Your task to perform on an android device: change the clock display to analog Image 0: 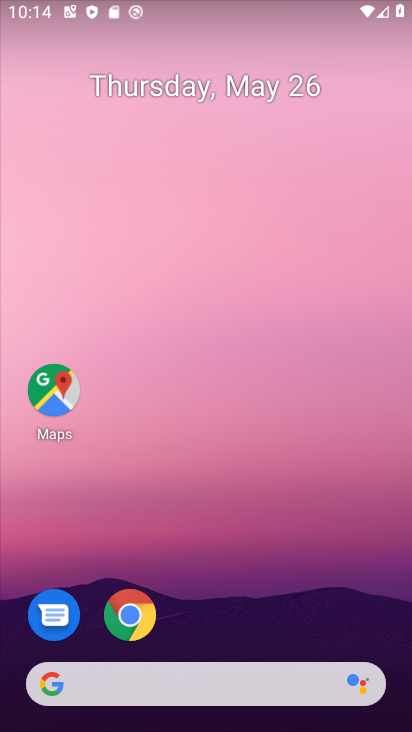
Step 0: drag from (180, 683) to (190, 155)
Your task to perform on an android device: change the clock display to analog Image 1: 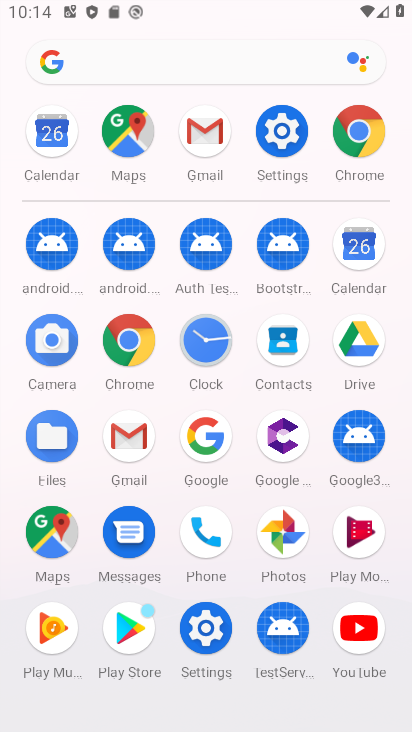
Step 1: click (210, 348)
Your task to perform on an android device: change the clock display to analog Image 2: 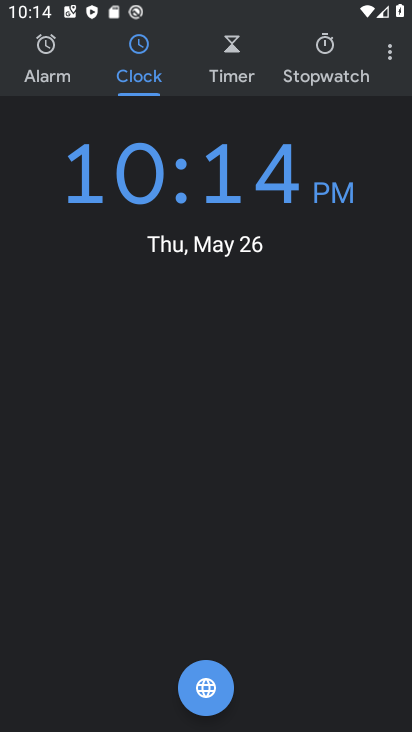
Step 2: click (387, 42)
Your task to perform on an android device: change the clock display to analog Image 3: 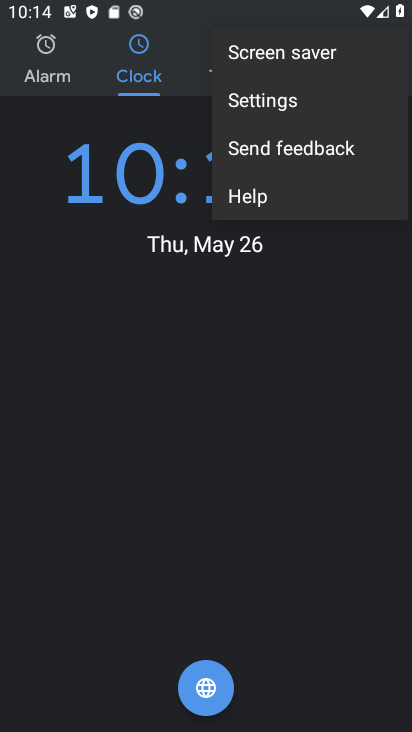
Step 3: click (334, 93)
Your task to perform on an android device: change the clock display to analog Image 4: 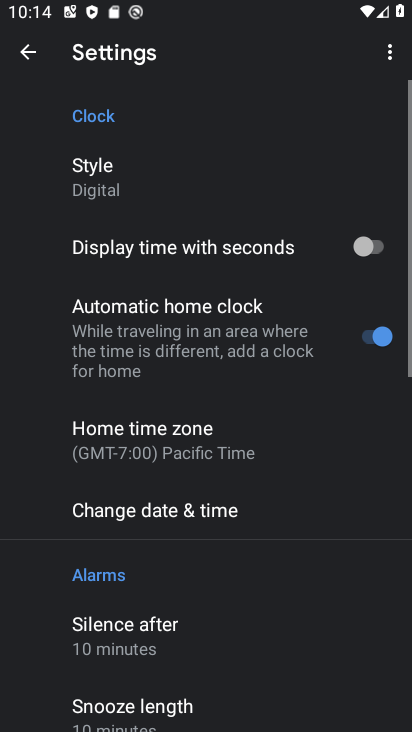
Step 4: click (122, 169)
Your task to perform on an android device: change the clock display to analog Image 5: 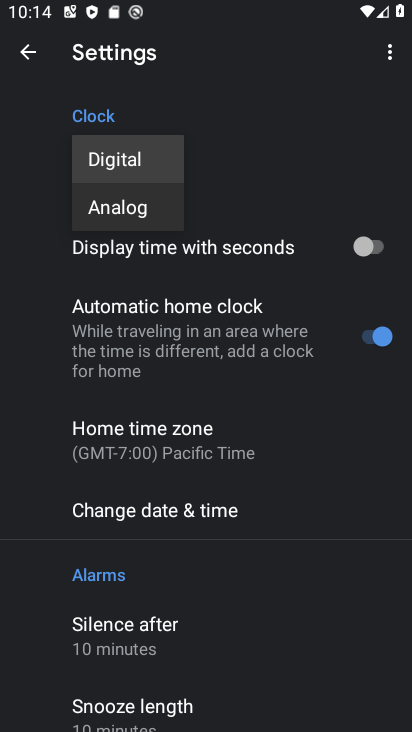
Step 5: click (125, 213)
Your task to perform on an android device: change the clock display to analog Image 6: 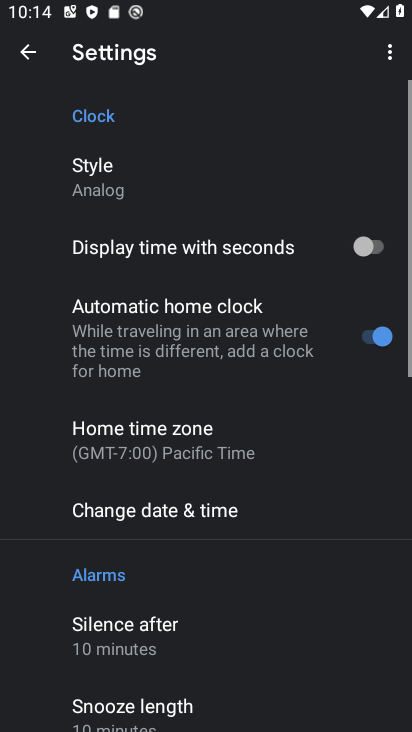
Step 6: task complete